Your task to perform on an android device: open the mobile data screen to see how much data has been used Image 0: 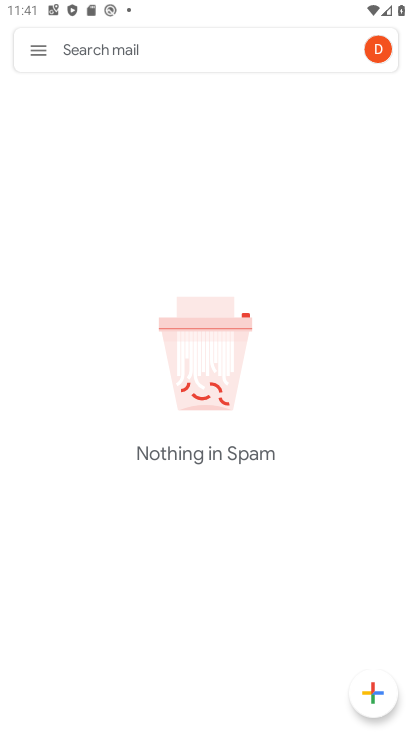
Step 0: press home button
Your task to perform on an android device: open the mobile data screen to see how much data has been used Image 1: 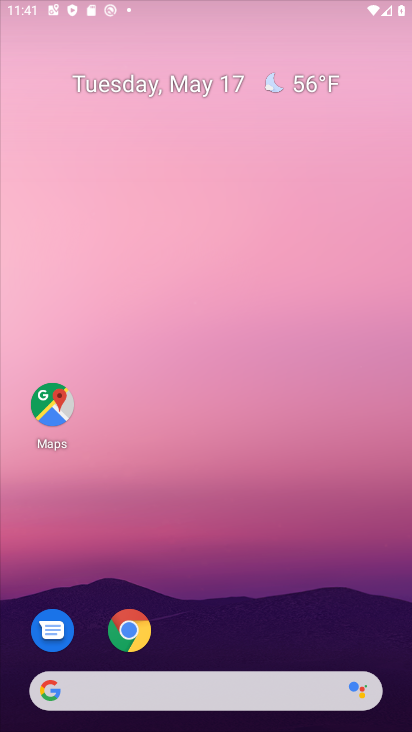
Step 1: drag from (318, 612) to (237, 238)
Your task to perform on an android device: open the mobile data screen to see how much data has been used Image 2: 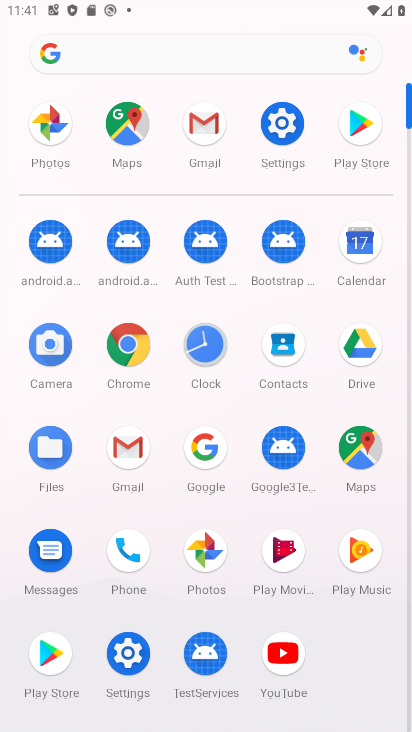
Step 2: click (132, 648)
Your task to perform on an android device: open the mobile data screen to see how much data has been used Image 3: 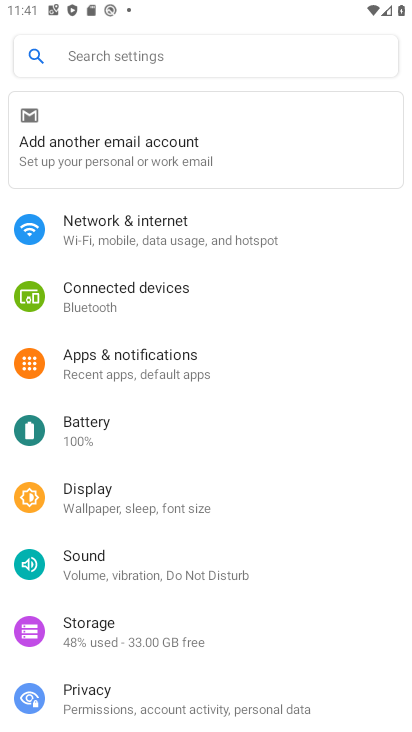
Step 3: click (195, 227)
Your task to perform on an android device: open the mobile data screen to see how much data has been used Image 4: 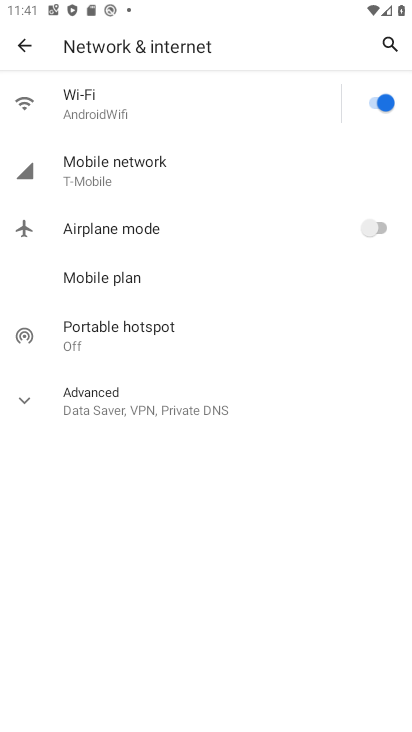
Step 4: click (198, 162)
Your task to perform on an android device: open the mobile data screen to see how much data has been used Image 5: 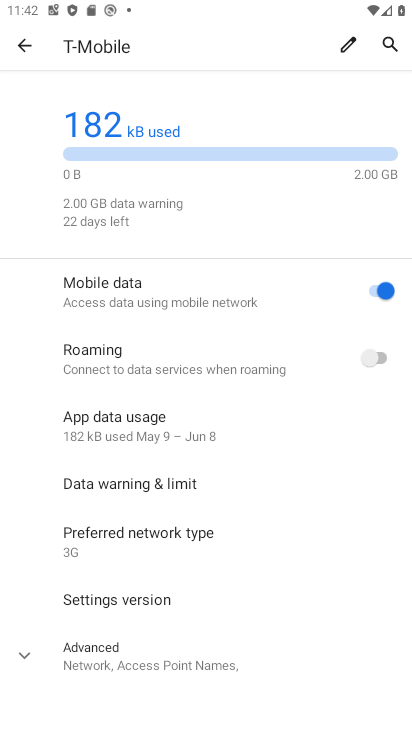
Step 5: task complete